Your task to perform on an android device: Open the web browser Image 0: 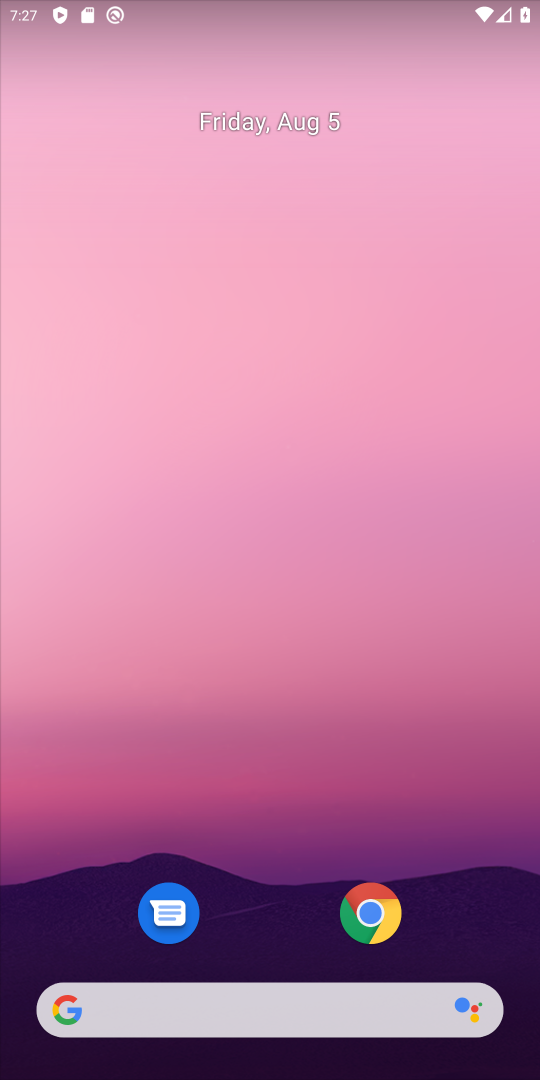
Step 0: press home button
Your task to perform on an android device: Open the web browser Image 1: 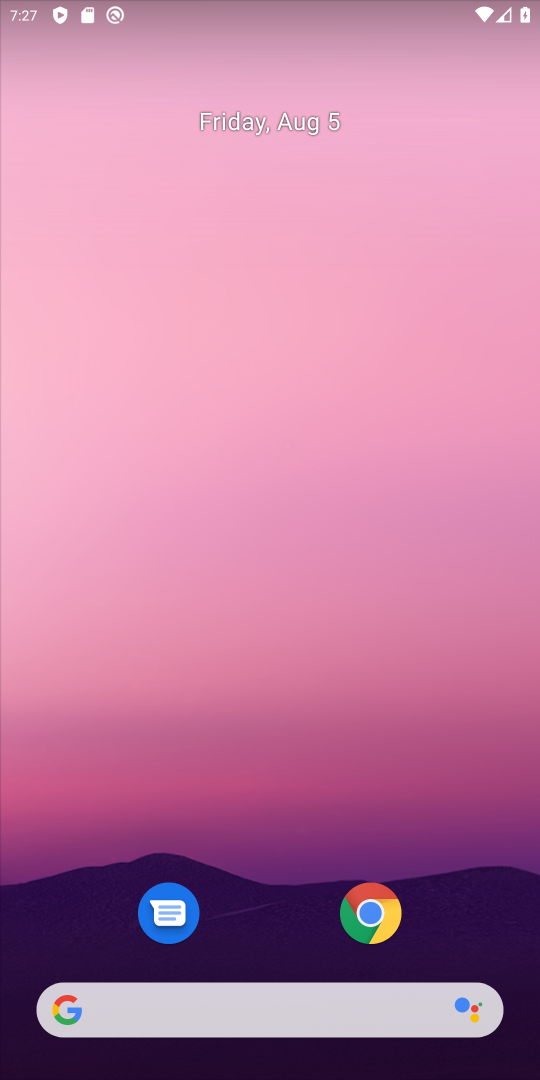
Step 1: drag from (277, 868) to (270, 300)
Your task to perform on an android device: Open the web browser Image 2: 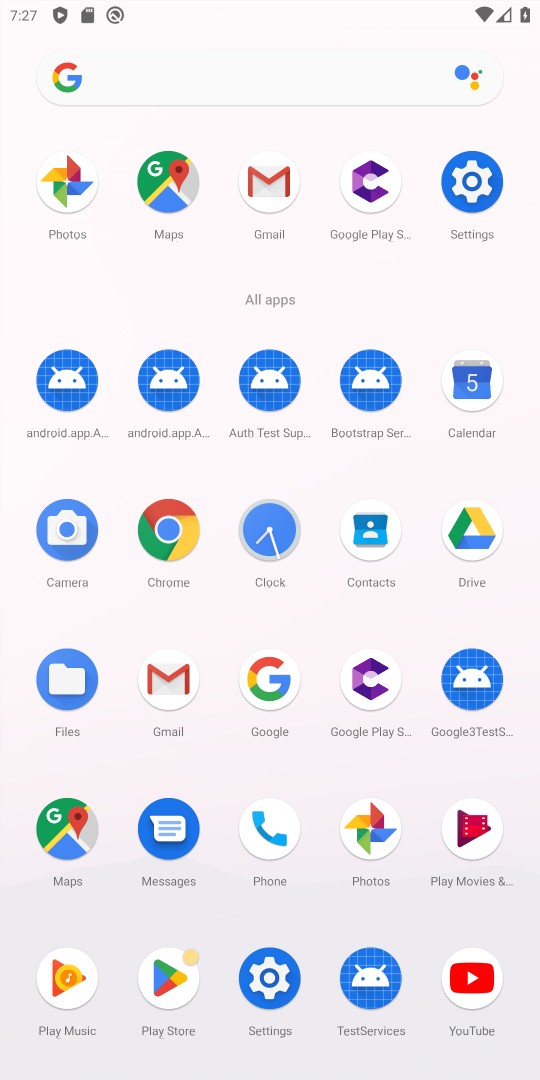
Step 2: click (161, 534)
Your task to perform on an android device: Open the web browser Image 3: 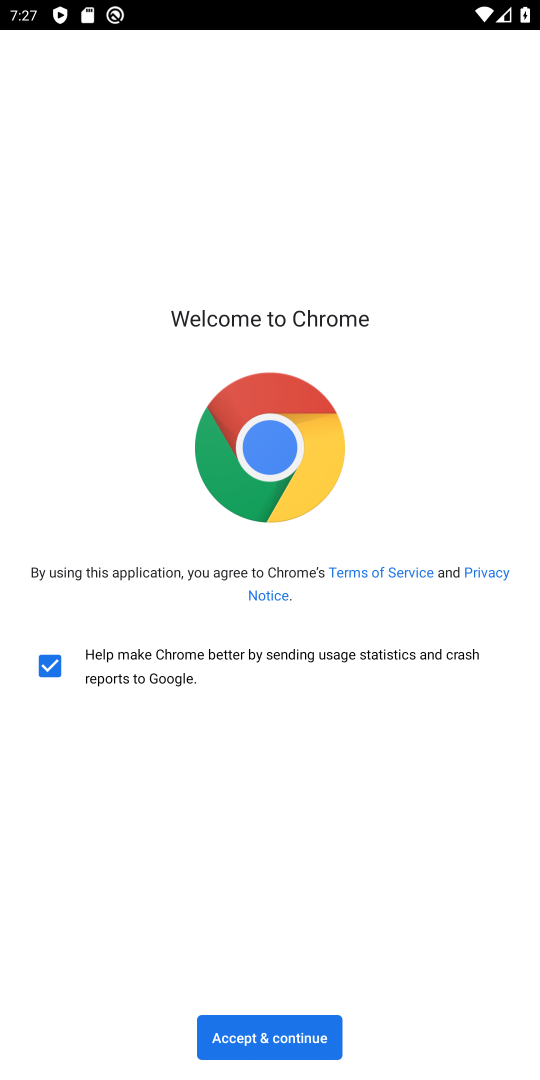
Step 3: click (243, 1047)
Your task to perform on an android device: Open the web browser Image 4: 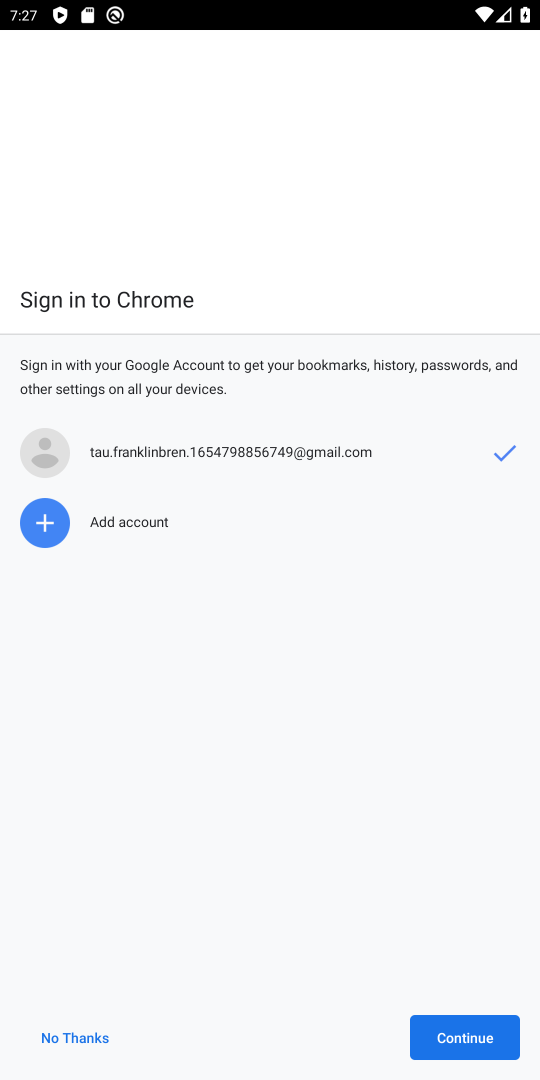
Step 4: click (477, 1032)
Your task to perform on an android device: Open the web browser Image 5: 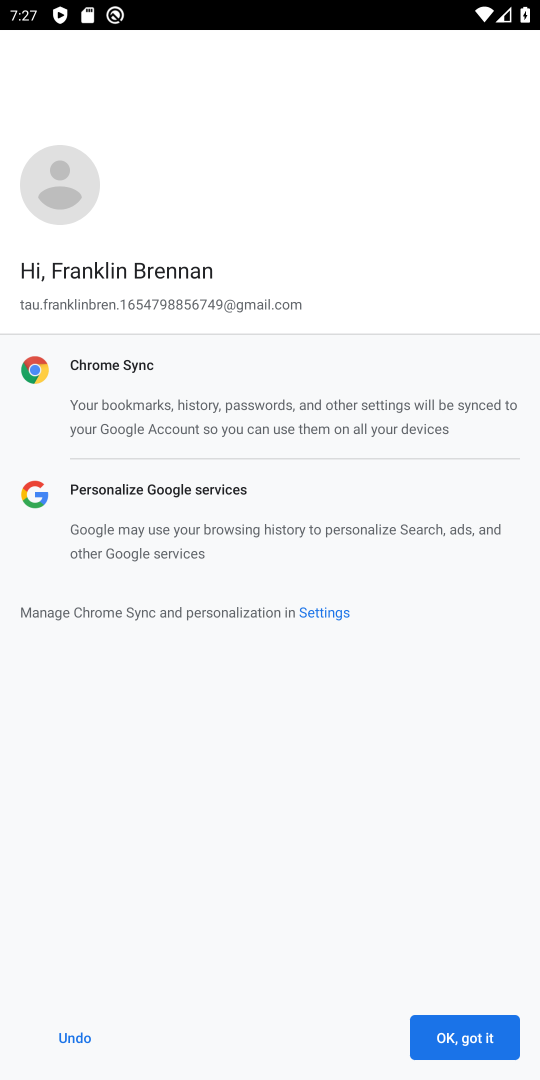
Step 5: click (474, 1035)
Your task to perform on an android device: Open the web browser Image 6: 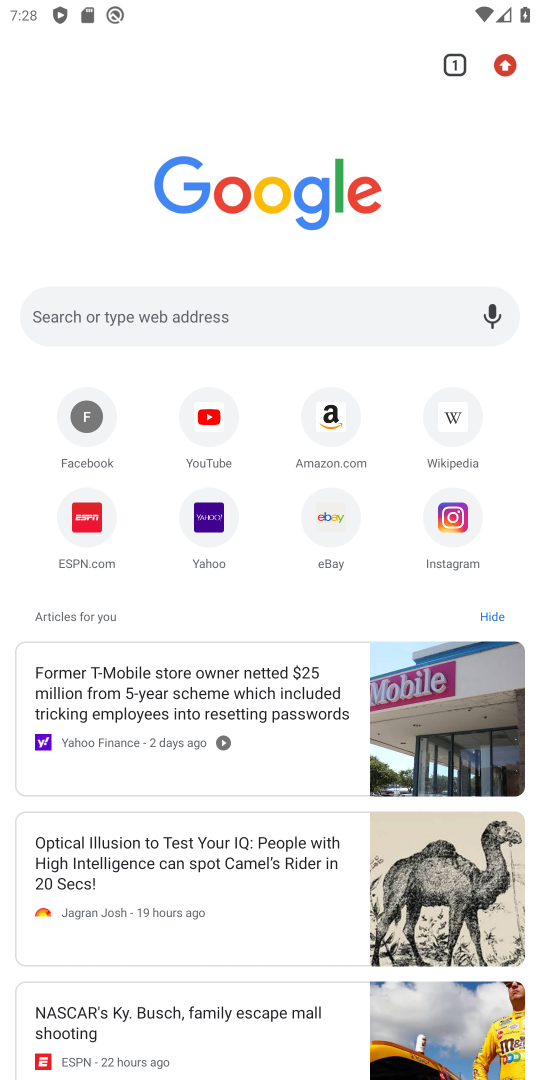
Step 6: task complete